Your task to perform on an android device: Search for the best selling jewelry on Etsy. Image 0: 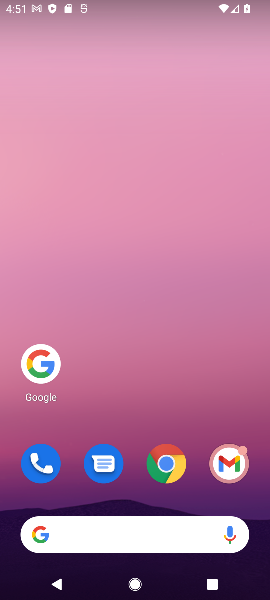
Step 0: click (37, 360)
Your task to perform on an android device: Search for the best selling jewelry on Etsy. Image 1: 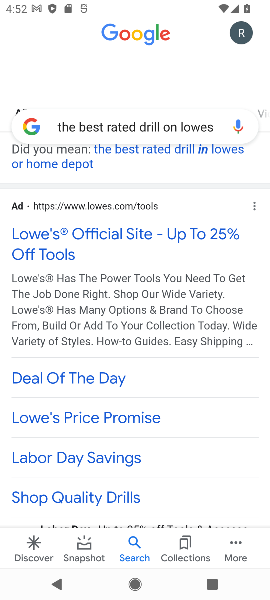
Step 1: click (127, 131)
Your task to perform on an android device: Search for the best selling jewelry on Etsy. Image 2: 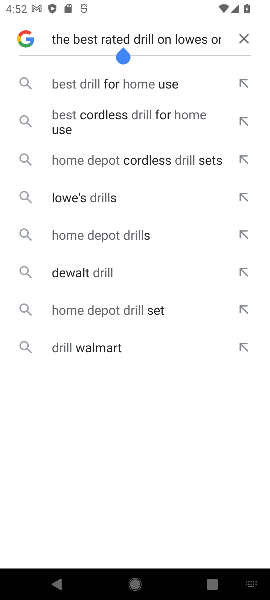
Step 2: click (256, 36)
Your task to perform on an android device: Search for the best selling jewelry on Etsy. Image 3: 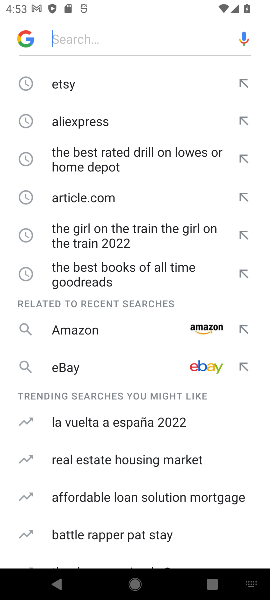
Step 3: click (127, 19)
Your task to perform on an android device: Search for the best selling jewelry on Etsy. Image 4: 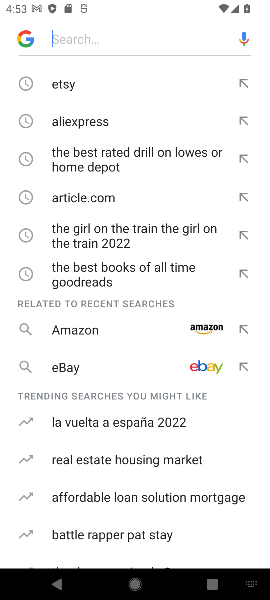
Step 4: click (142, 46)
Your task to perform on an android device: Search for the best selling jewelry on Etsy. Image 5: 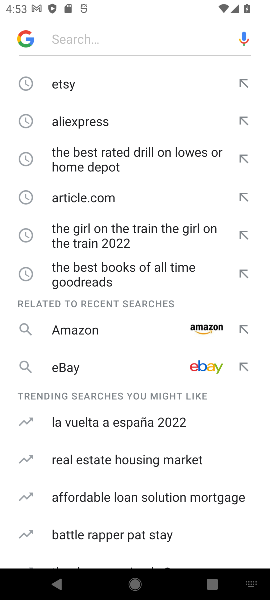
Step 5: click (151, 27)
Your task to perform on an android device: Search for the best selling jewelry on Etsy. Image 6: 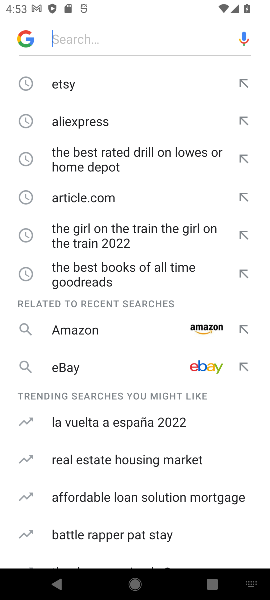
Step 6: type " the best selling jewelry on Etsy "
Your task to perform on an android device: Search for the best selling jewelry on Etsy. Image 7: 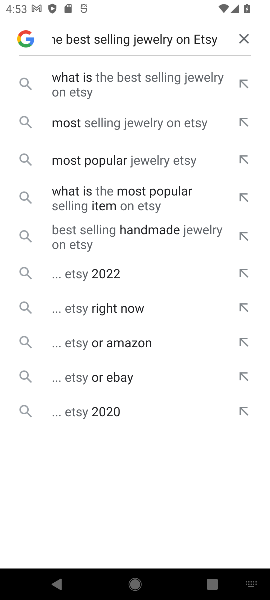
Step 7: click (111, 91)
Your task to perform on an android device: Search for the best selling jewelry on Etsy. Image 8: 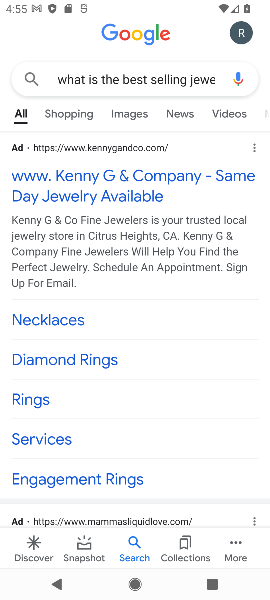
Step 8: drag from (165, 447) to (146, 238)
Your task to perform on an android device: Search for the best selling jewelry on Etsy. Image 9: 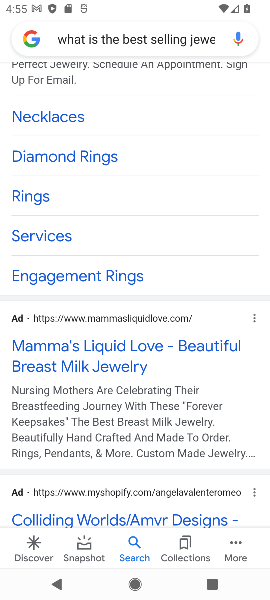
Step 9: drag from (133, 497) to (157, 332)
Your task to perform on an android device: Search for the best selling jewelry on Etsy. Image 10: 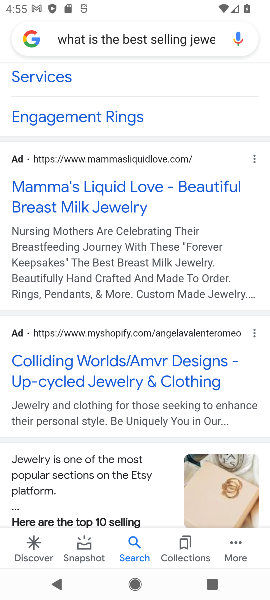
Step 10: drag from (100, 431) to (156, 165)
Your task to perform on an android device: Search for the best selling jewelry on Etsy. Image 11: 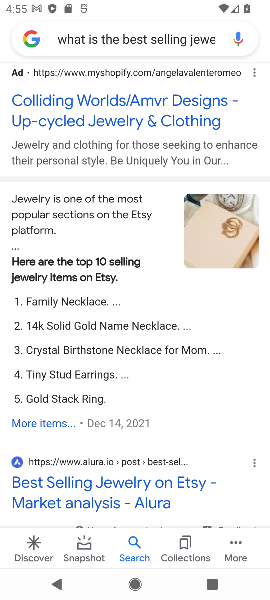
Step 11: click (88, 486)
Your task to perform on an android device: Search for the best selling jewelry on Etsy. Image 12: 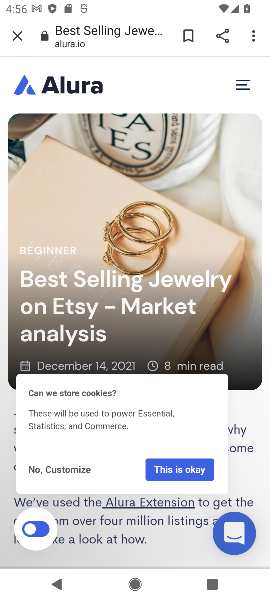
Step 12: task complete